Your task to perform on an android device: delete the emails in spam in the gmail app Image 0: 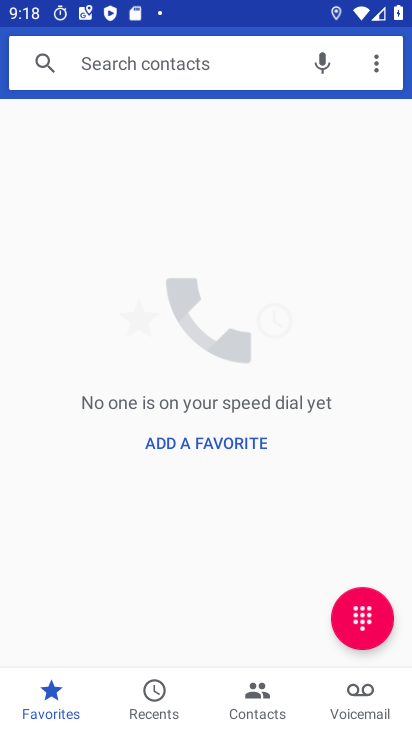
Step 0: press home button
Your task to perform on an android device: delete the emails in spam in the gmail app Image 1: 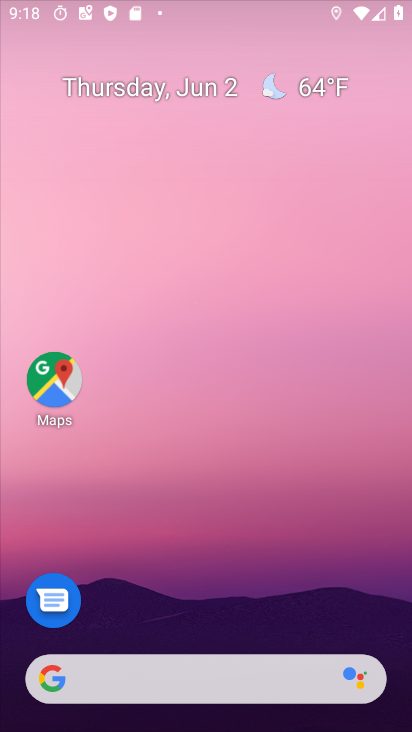
Step 1: drag from (216, 611) to (164, 83)
Your task to perform on an android device: delete the emails in spam in the gmail app Image 2: 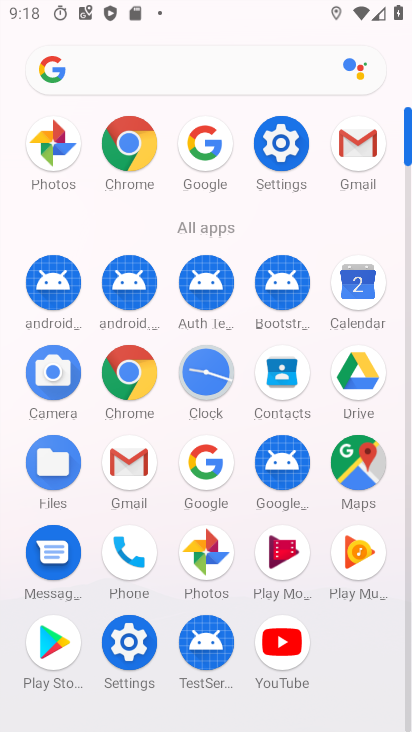
Step 2: click (138, 469)
Your task to perform on an android device: delete the emails in spam in the gmail app Image 3: 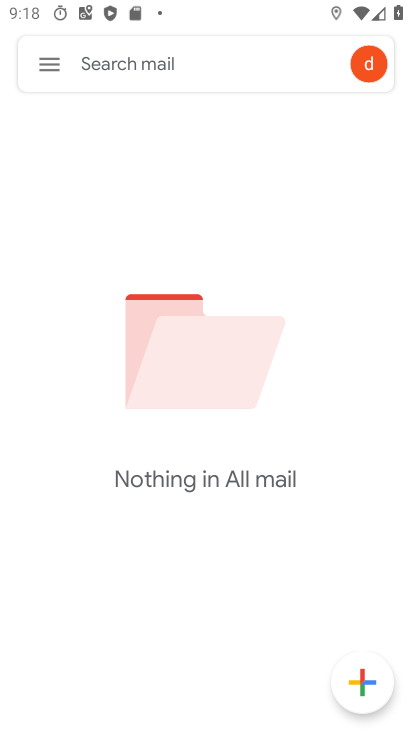
Step 3: click (48, 72)
Your task to perform on an android device: delete the emails in spam in the gmail app Image 4: 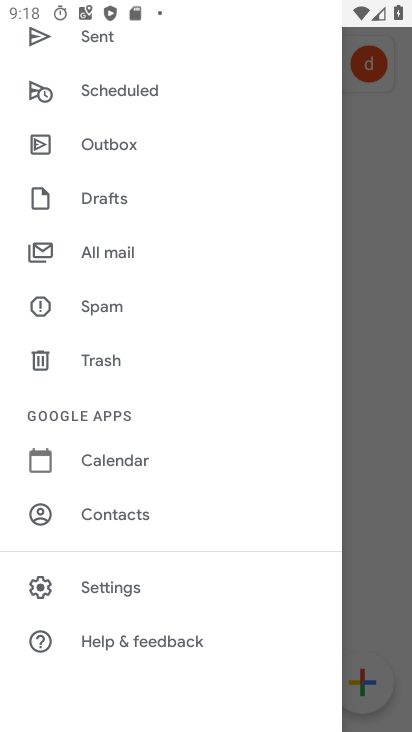
Step 4: click (108, 303)
Your task to perform on an android device: delete the emails in spam in the gmail app Image 5: 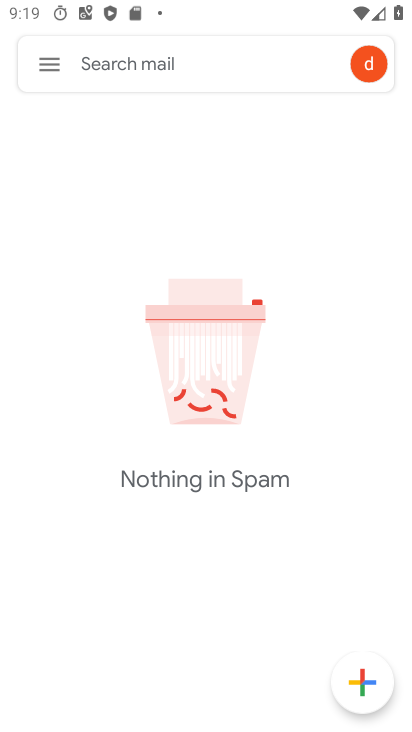
Step 5: task complete